Your task to perform on an android device: What's the weather going to be tomorrow? Image 0: 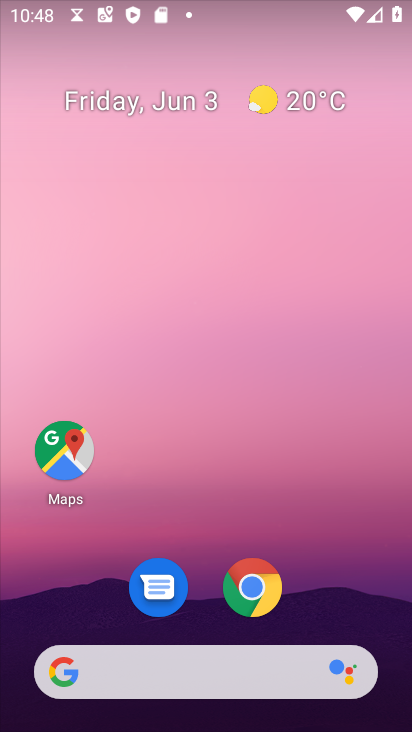
Step 0: click (30, 455)
Your task to perform on an android device: What's the weather going to be tomorrow? Image 1: 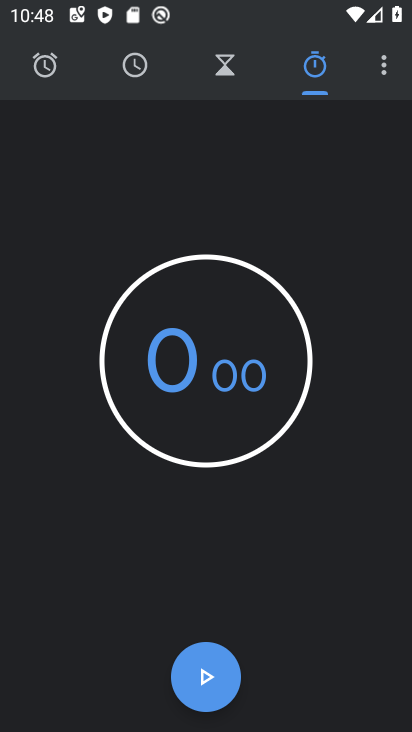
Step 1: press home button
Your task to perform on an android device: What's the weather going to be tomorrow? Image 2: 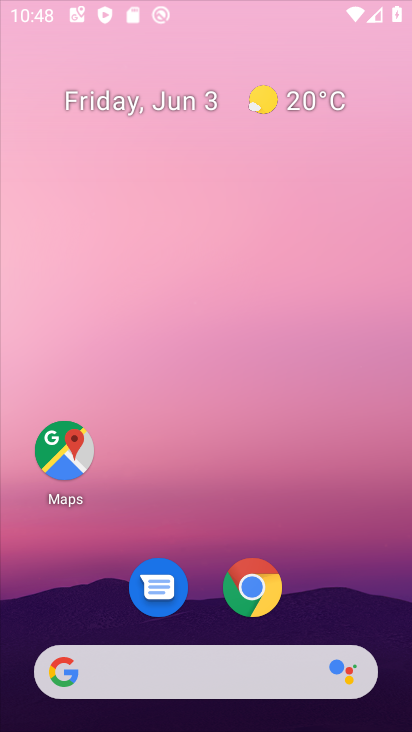
Step 2: drag from (348, 472) to (289, 6)
Your task to perform on an android device: What's the weather going to be tomorrow? Image 3: 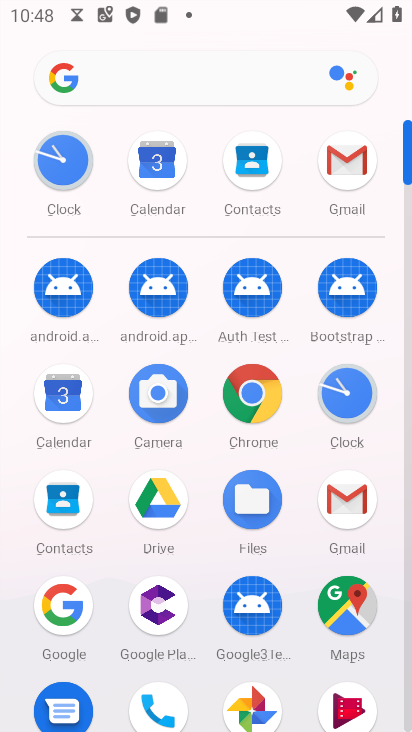
Step 3: click (351, 503)
Your task to perform on an android device: What's the weather going to be tomorrow? Image 4: 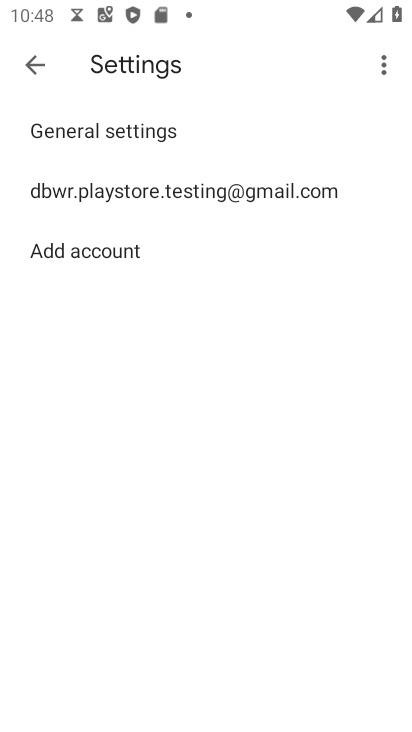
Step 4: press home button
Your task to perform on an android device: What's the weather going to be tomorrow? Image 5: 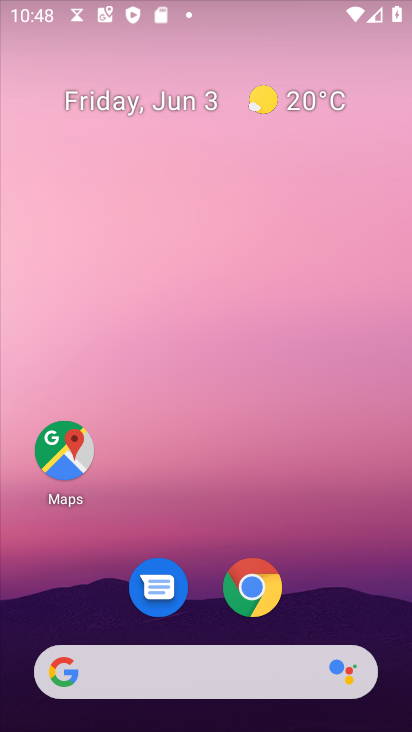
Step 5: click (311, 90)
Your task to perform on an android device: What's the weather going to be tomorrow? Image 6: 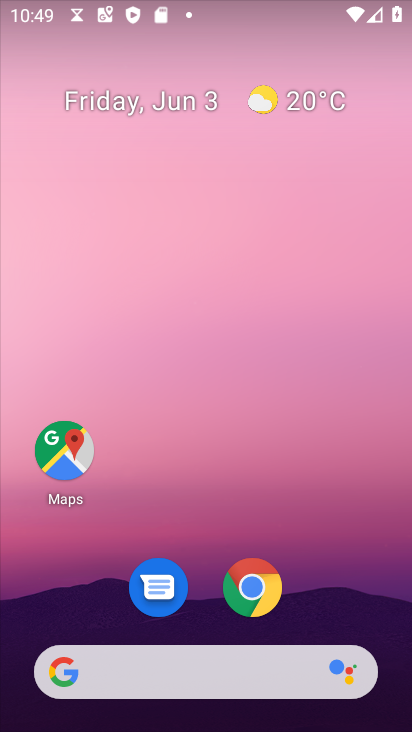
Step 6: click (303, 91)
Your task to perform on an android device: What's the weather going to be tomorrow? Image 7: 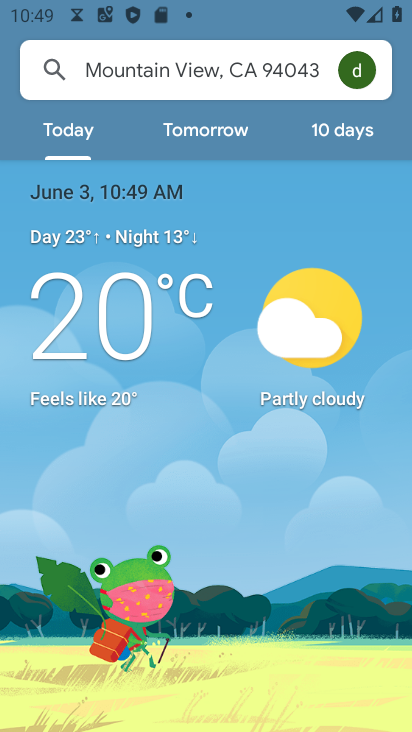
Step 7: click (204, 122)
Your task to perform on an android device: What's the weather going to be tomorrow? Image 8: 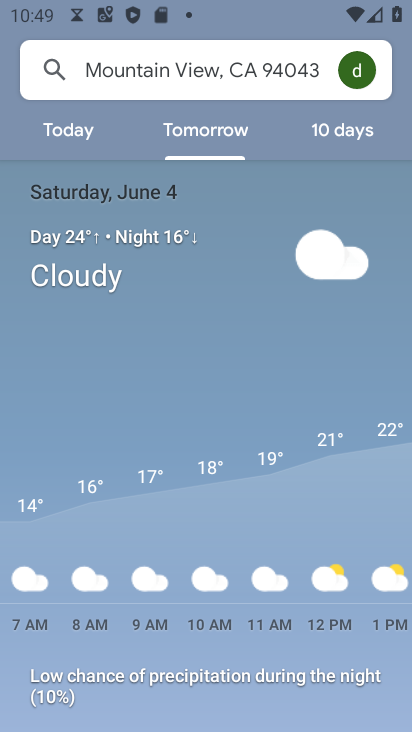
Step 8: task complete